Your task to perform on an android device: Search for Italian restaurants on Maps Image 0: 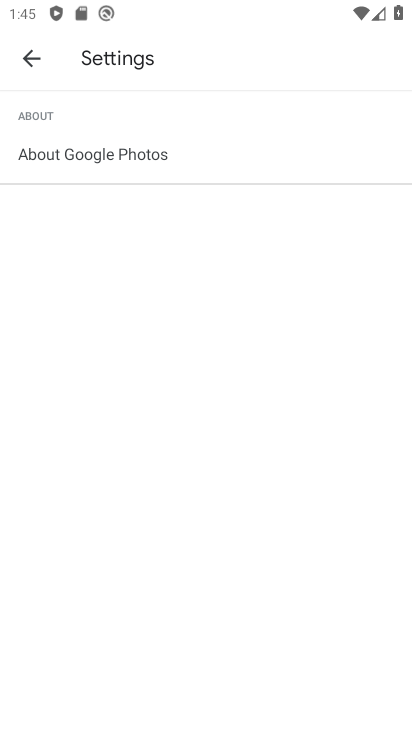
Step 0: press home button
Your task to perform on an android device: Search for Italian restaurants on Maps Image 1: 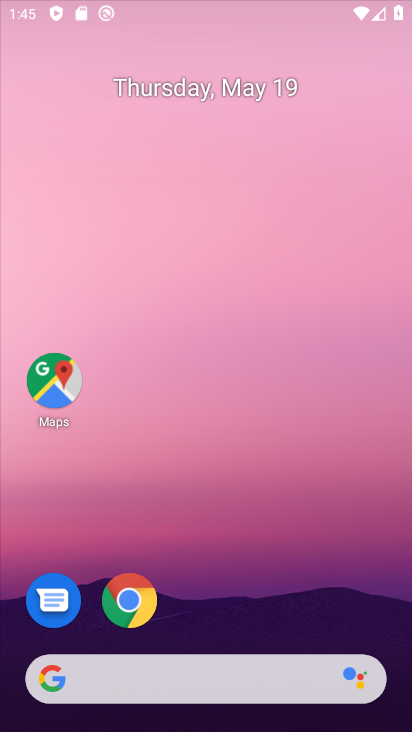
Step 1: click (14, 500)
Your task to perform on an android device: Search for Italian restaurants on Maps Image 2: 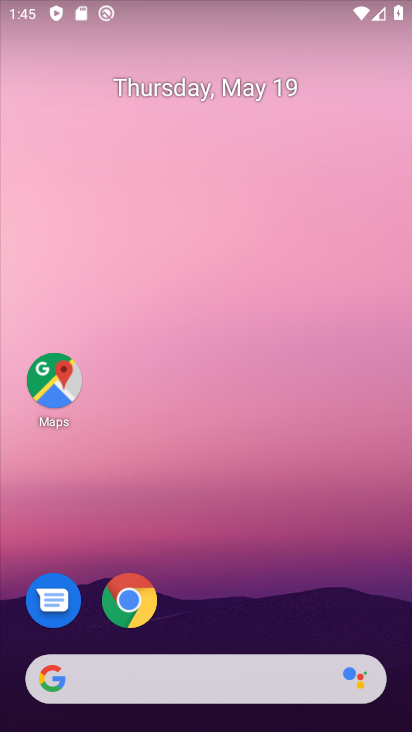
Step 2: click (67, 378)
Your task to perform on an android device: Search for Italian restaurants on Maps Image 3: 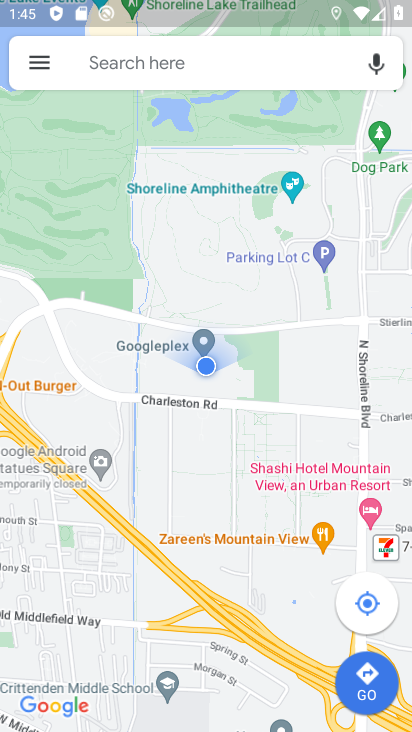
Step 3: click (185, 63)
Your task to perform on an android device: Search for Italian restaurants on Maps Image 4: 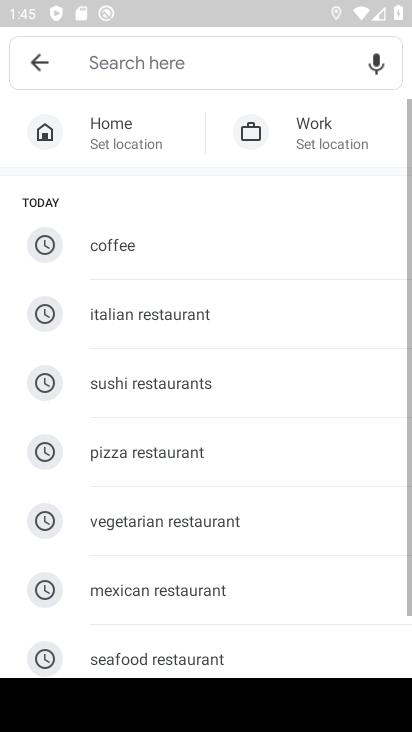
Step 4: click (122, 324)
Your task to perform on an android device: Search for Italian restaurants on Maps Image 5: 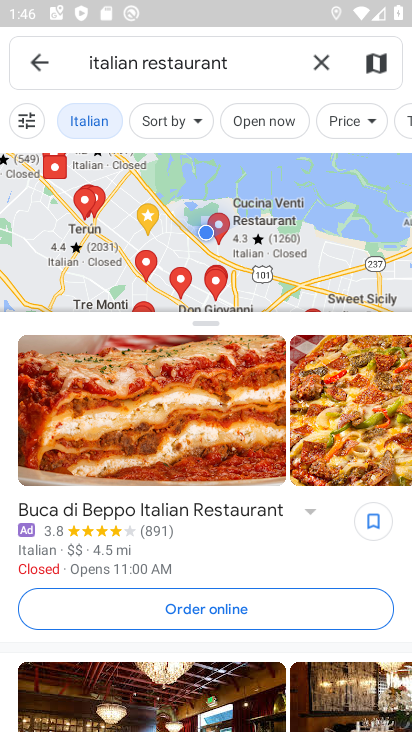
Step 5: task complete